Your task to perform on an android device: empty trash in the gmail app Image 0: 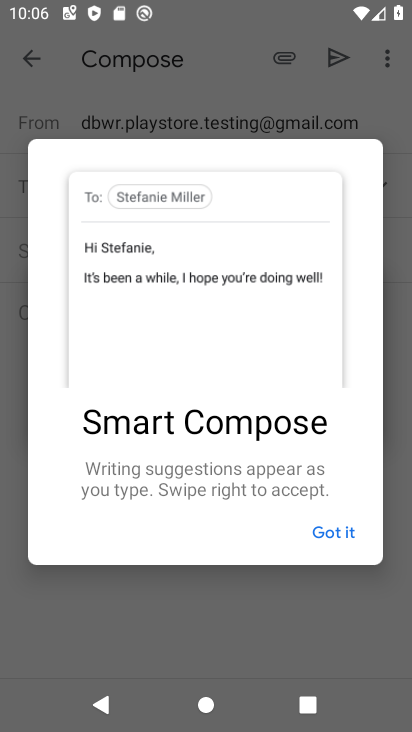
Step 0: press home button
Your task to perform on an android device: empty trash in the gmail app Image 1: 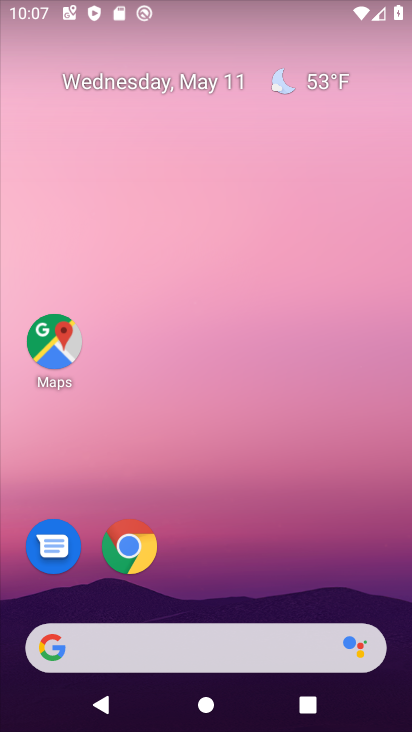
Step 1: drag from (387, 629) to (347, 159)
Your task to perform on an android device: empty trash in the gmail app Image 2: 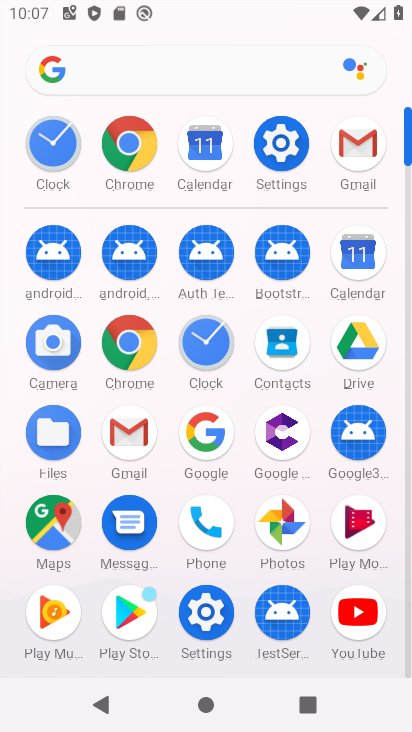
Step 2: click (129, 429)
Your task to perform on an android device: empty trash in the gmail app Image 3: 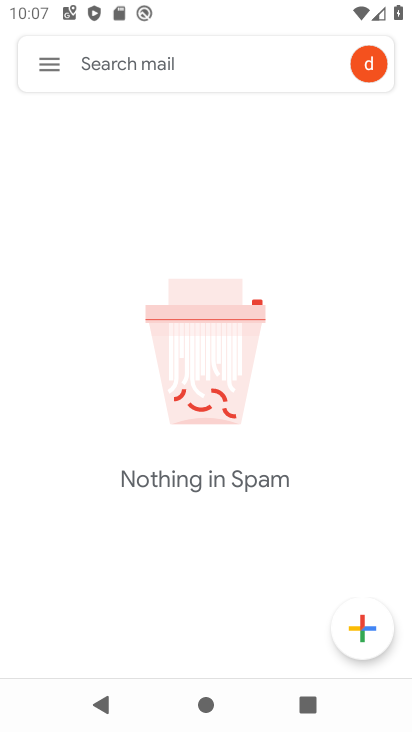
Step 3: click (55, 43)
Your task to perform on an android device: empty trash in the gmail app Image 4: 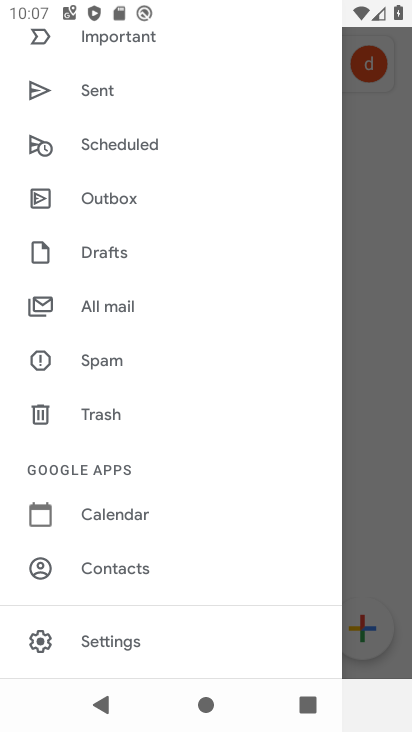
Step 4: click (116, 399)
Your task to perform on an android device: empty trash in the gmail app Image 5: 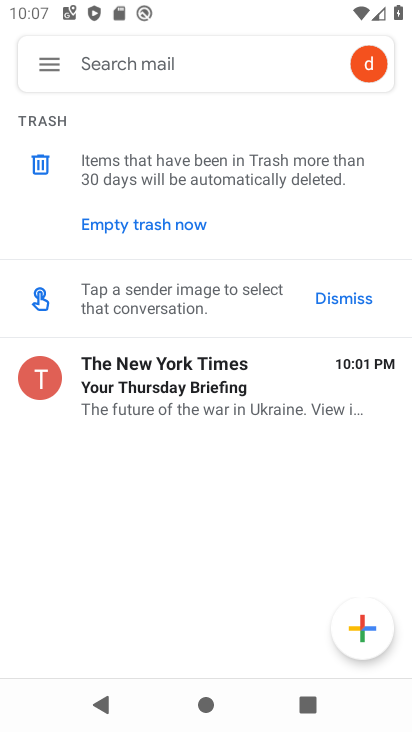
Step 5: click (121, 230)
Your task to perform on an android device: empty trash in the gmail app Image 6: 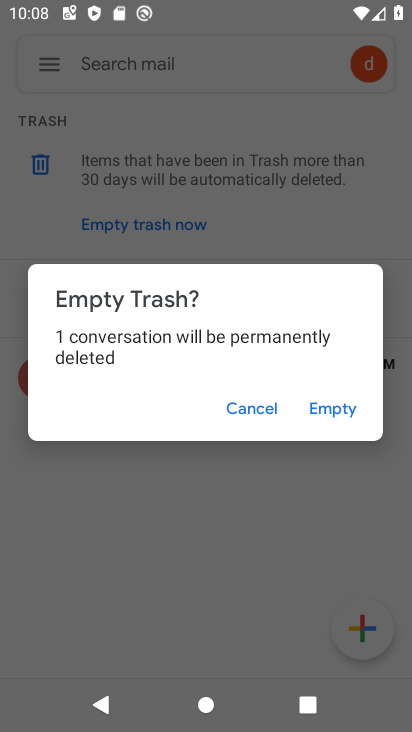
Step 6: click (331, 404)
Your task to perform on an android device: empty trash in the gmail app Image 7: 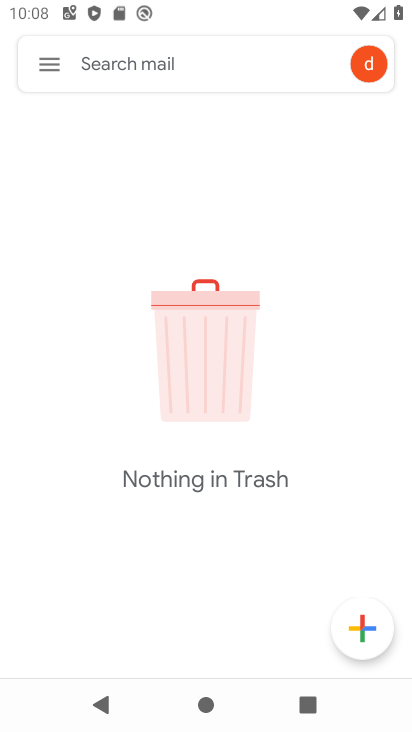
Step 7: task complete